Your task to perform on an android device: Open my contact list Image 0: 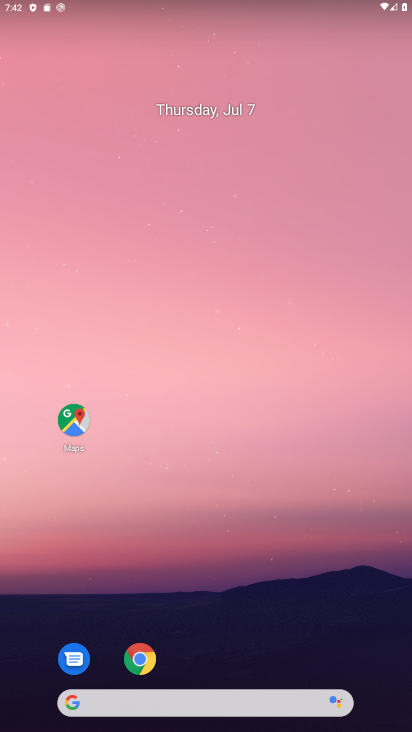
Step 0: drag from (203, 508) to (229, 52)
Your task to perform on an android device: Open my contact list Image 1: 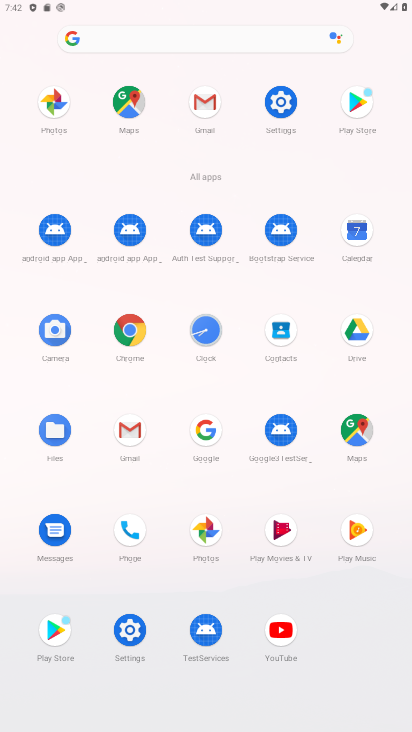
Step 1: click (271, 332)
Your task to perform on an android device: Open my contact list Image 2: 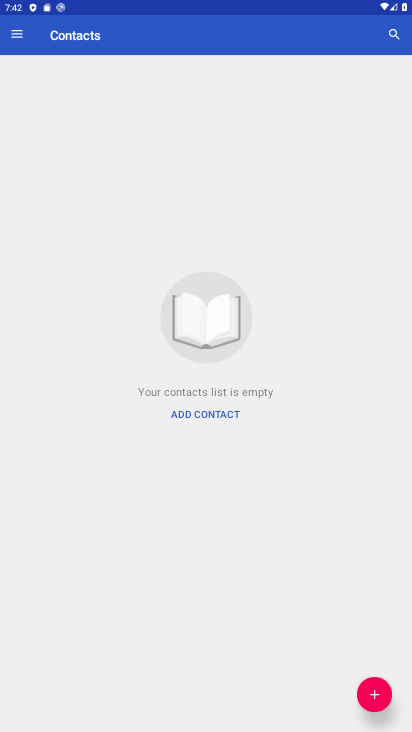
Step 2: task complete